Your task to perform on an android device: add a contact in the contacts app Image 0: 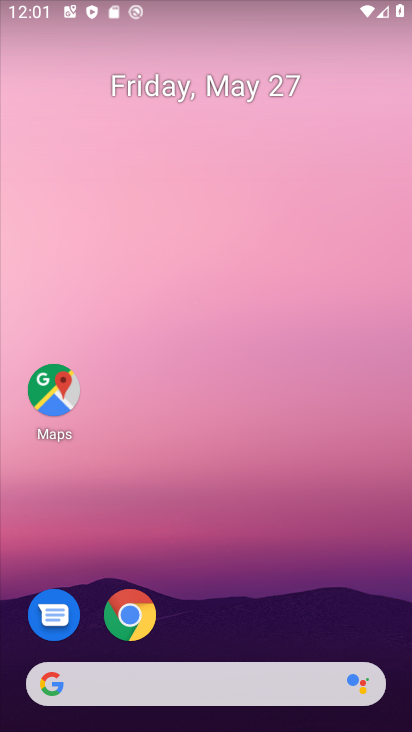
Step 0: drag from (339, 672) to (408, 85)
Your task to perform on an android device: add a contact in the contacts app Image 1: 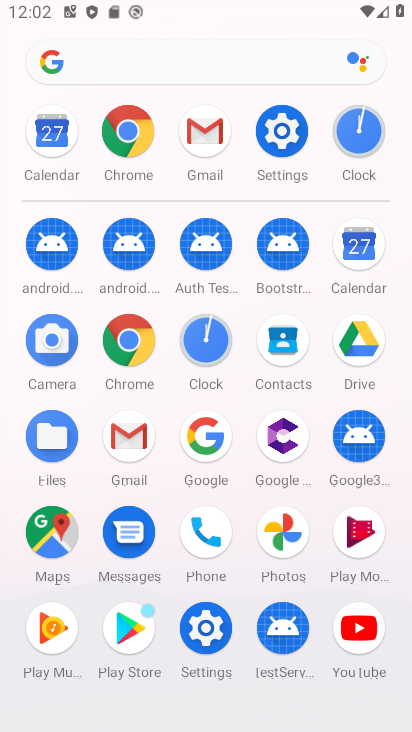
Step 1: click (269, 343)
Your task to perform on an android device: add a contact in the contacts app Image 2: 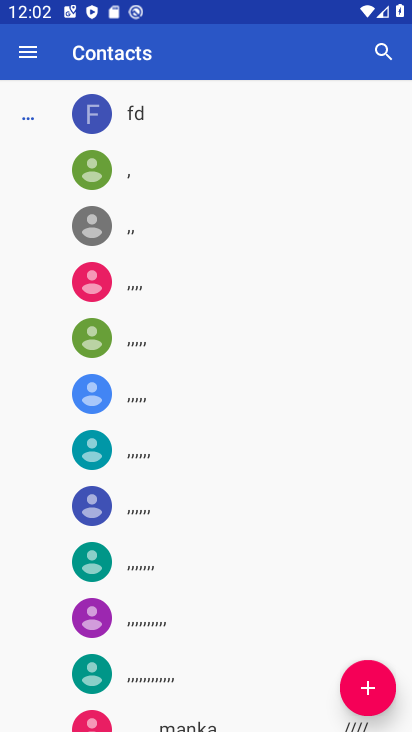
Step 2: click (355, 700)
Your task to perform on an android device: add a contact in the contacts app Image 3: 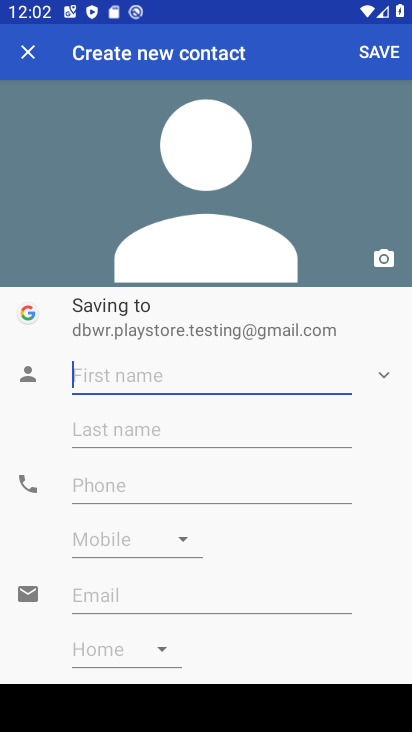
Step 3: type "fggbfggg"
Your task to perform on an android device: add a contact in the contacts app Image 4: 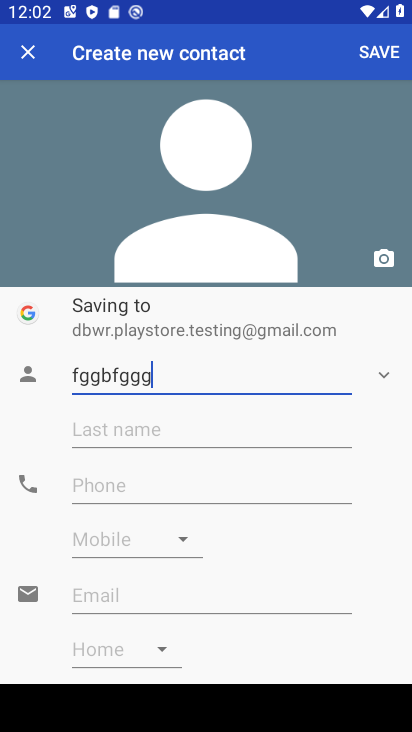
Step 4: click (192, 490)
Your task to perform on an android device: add a contact in the contacts app Image 5: 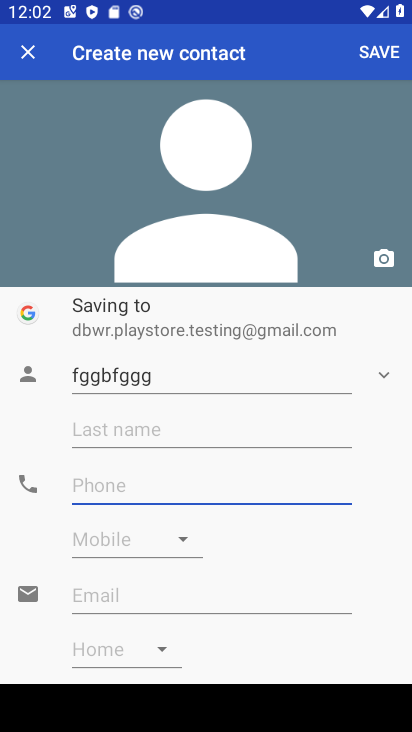
Step 5: type "9897656667"
Your task to perform on an android device: add a contact in the contacts app Image 6: 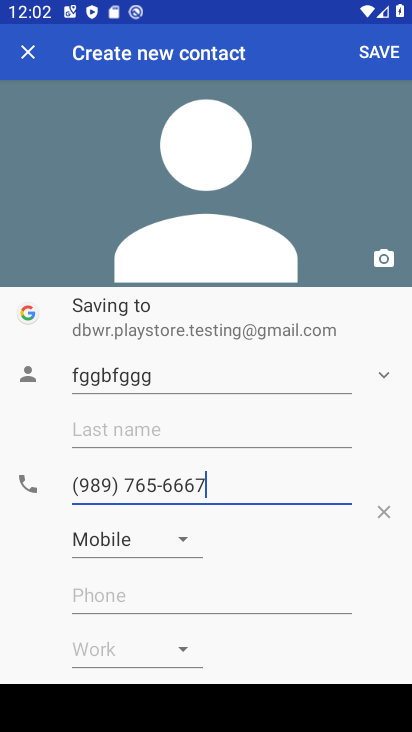
Step 6: click (384, 40)
Your task to perform on an android device: add a contact in the contacts app Image 7: 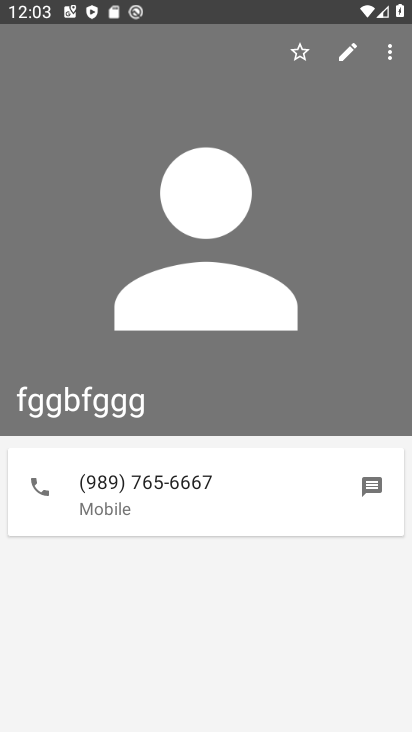
Step 7: task complete